Your task to perform on an android device: change the clock display to show seconds Image 0: 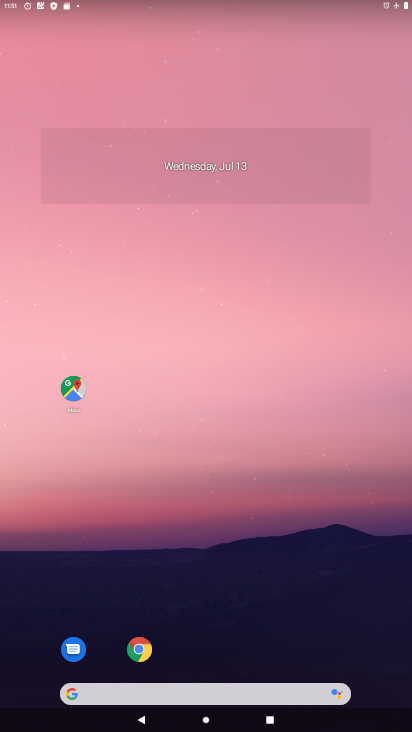
Step 0: drag from (199, 690) to (255, 245)
Your task to perform on an android device: change the clock display to show seconds Image 1: 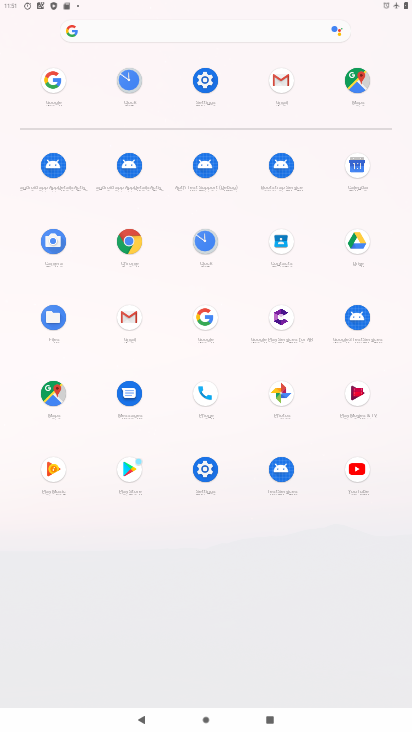
Step 1: click (207, 240)
Your task to perform on an android device: change the clock display to show seconds Image 2: 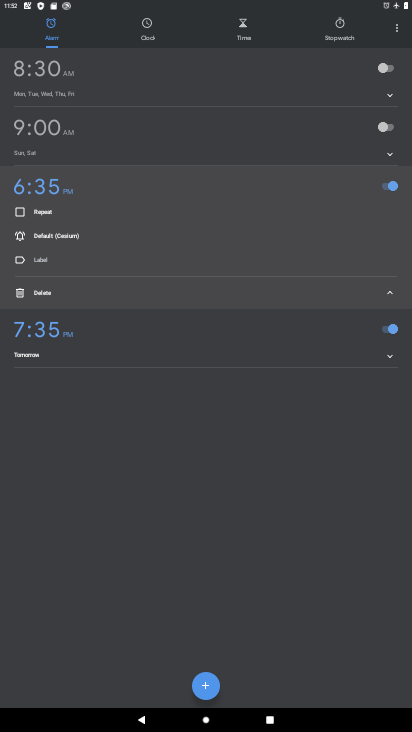
Step 2: click (394, 34)
Your task to perform on an android device: change the clock display to show seconds Image 3: 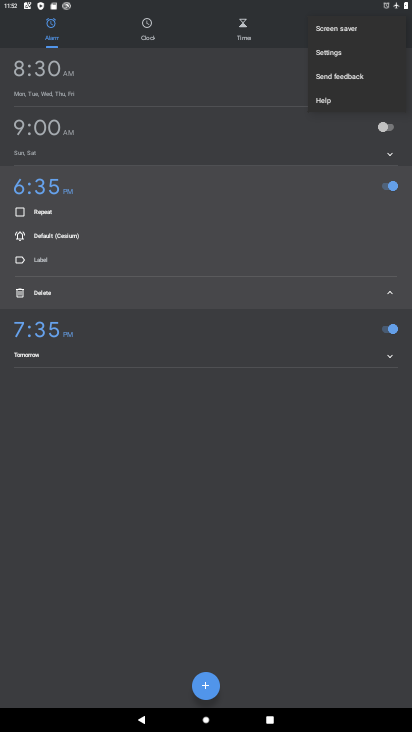
Step 3: click (331, 53)
Your task to perform on an android device: change the clock display to show seconds Image 4: 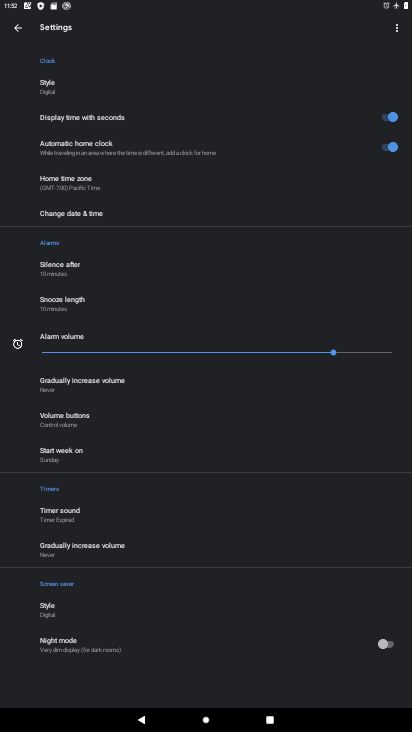
Step 4: click (393, 121)
Your task to perform on an android device: change the clock display to show seconds Image 5: 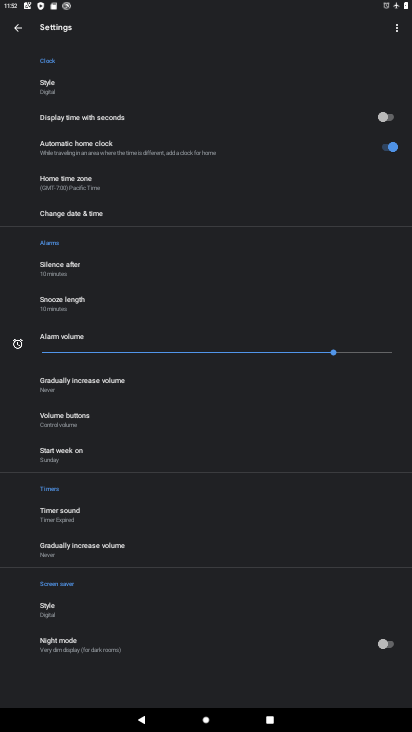
Step 5: task complete